Your task to perform on an android device: Is it going to rain today? Image 0: 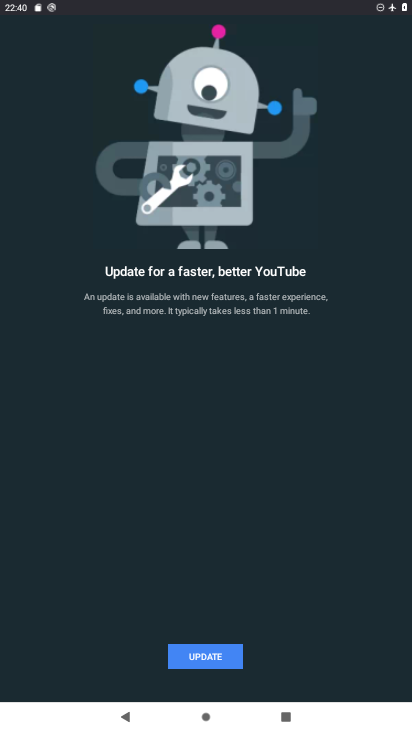
Step 0: press home button
Your task to perform on an android device: Is it going to rain today? Image 1: 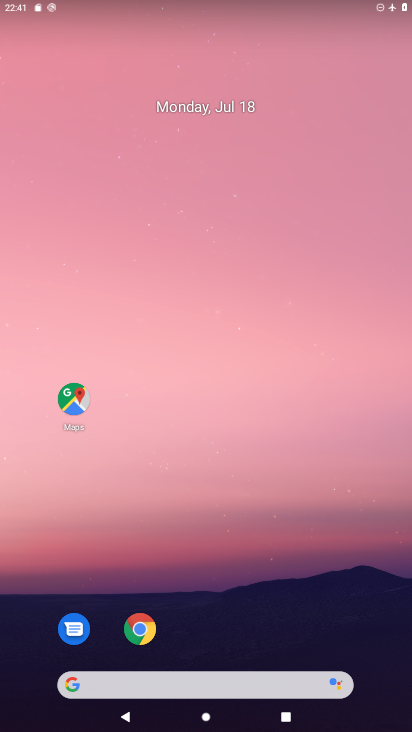
Step 1: drag from (288, 630) to (217, 103)
Your task to perform on an android device: Is it going to rain today? Image 2: 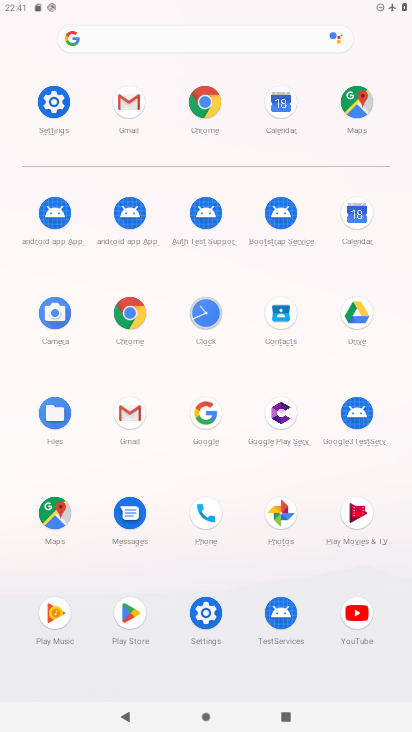
Step 2: click (212, 96)
Your task to perform on an android device: Is it going to rain today? Image 3: 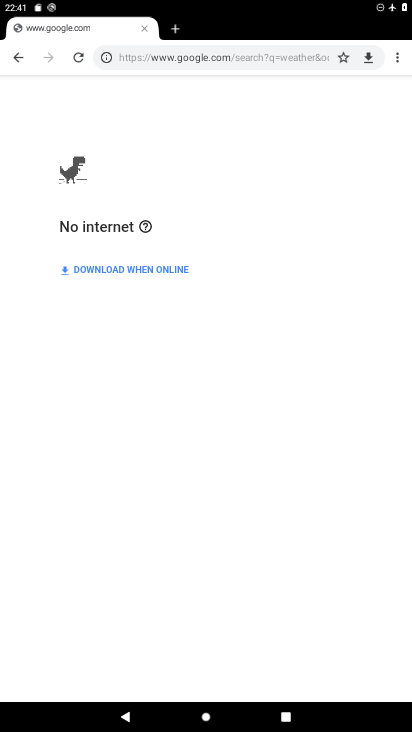
Step 3: click (237, 62)
Your task to perform on an android device: Is it going to rain today? Image 4: 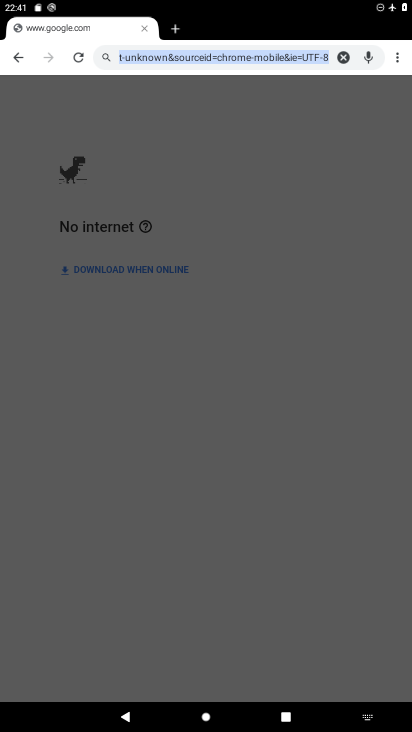
Step 4: type "weather"
Your task to perform on an android device: Is it going to rain today? Image 5: 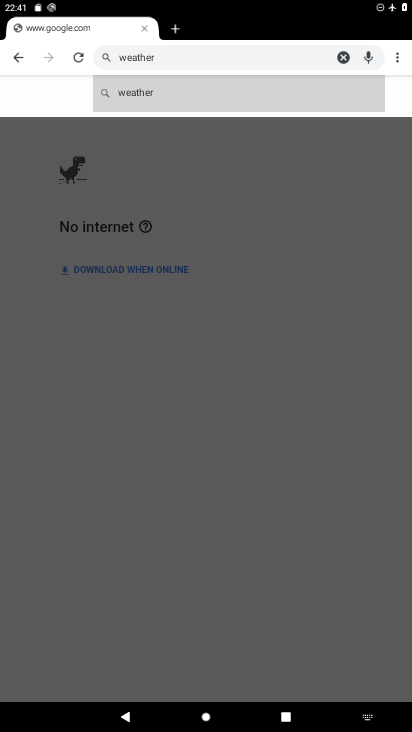
Step 5: click (146, 86)
Your task to perform on an android device: Is it going to rain today? Image 6: 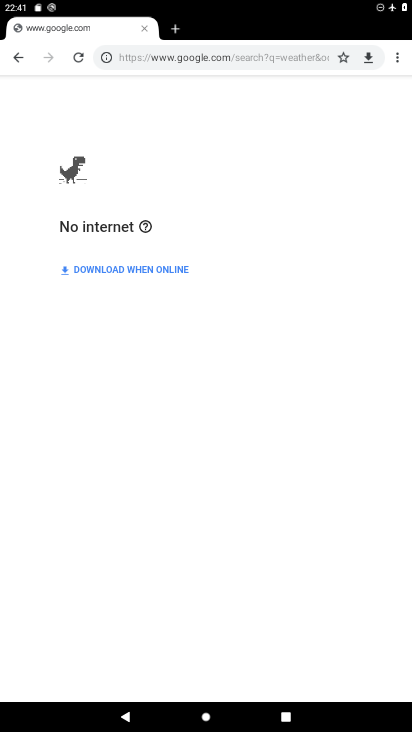
Step 6: task complete